Your task to perform on an android device: toggle wifi Image 0: 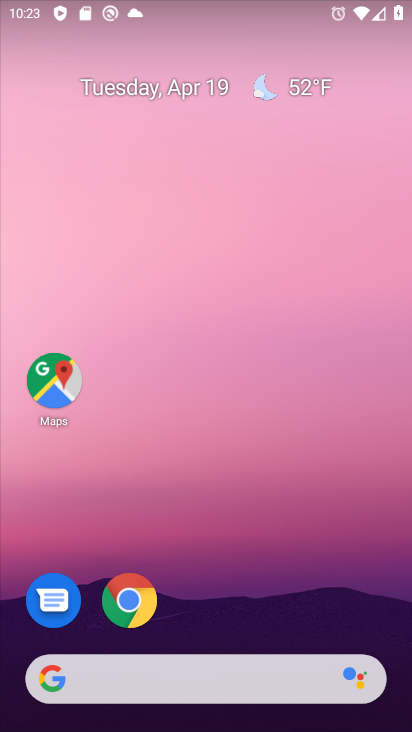
Step 0: drag from (280, 621) to (259, 146)
Your task to perform on an android device: toggle wifi Image 1: 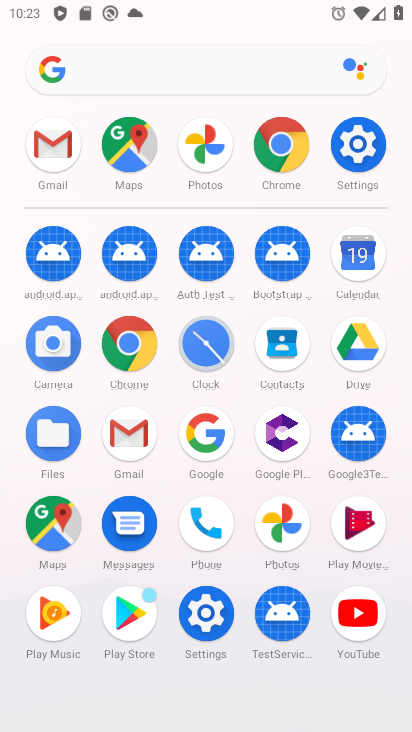
Step 1: drag from (252, 33) to (257, 394)
Your task to perform on an android device: toggle wifi Image 2: 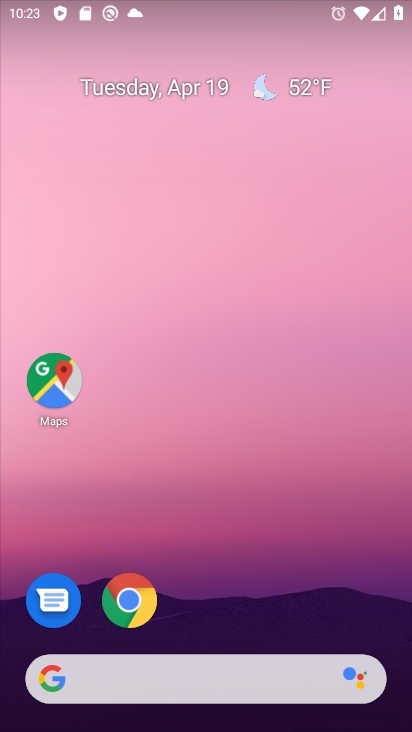
Step 2: drag from (222, 65) to (245, 471)
Your task to perform on an android device: toggle wifi Image 3: 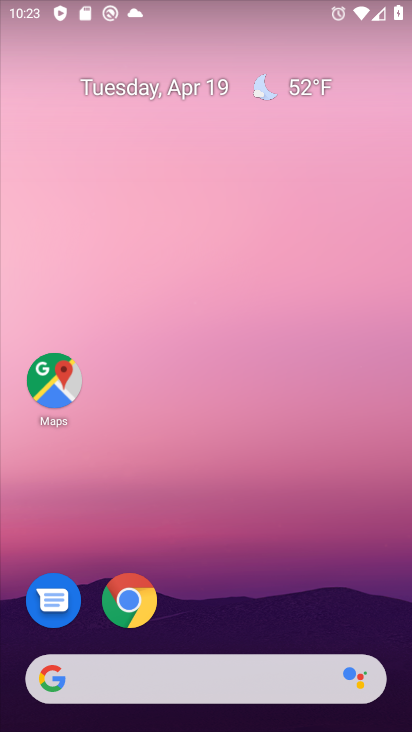
Step 3: drag from (208, 2) to (238, 424)
Your task to perform on an android device: toggle wifi Image 4: 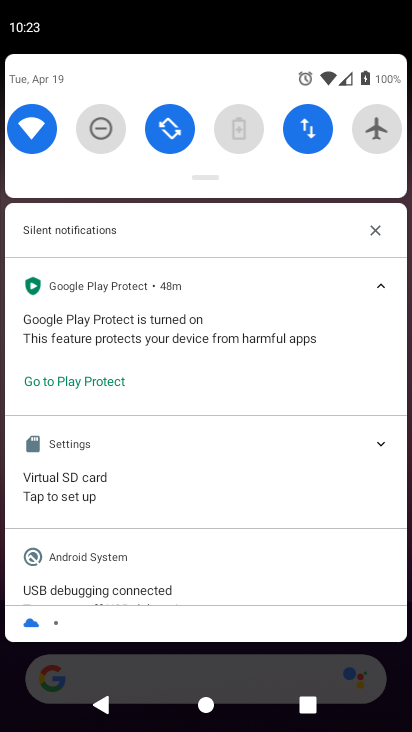
Step 4: click (38, 124)
Your task to perform on an android device: toggle wifi Image 5: 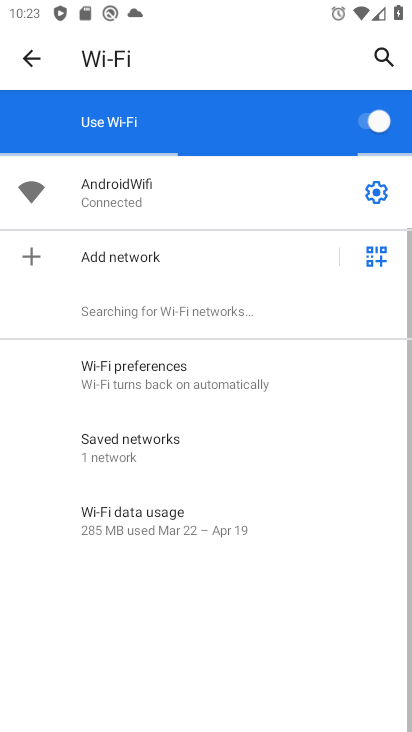
Step 5: click (355, 122)
Your task to perform on an android device: toggle wifi Image 6: 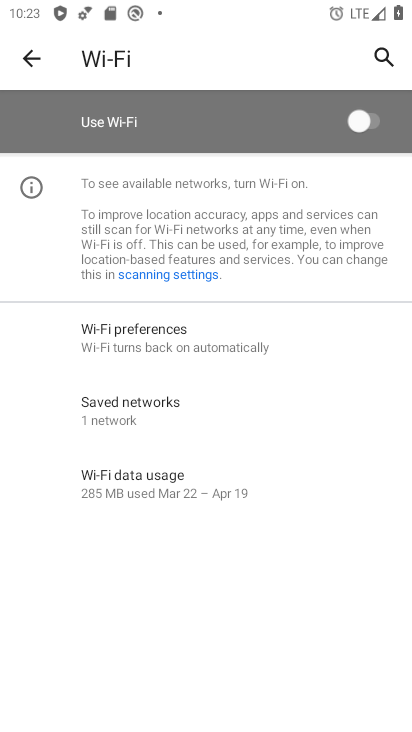
Step 6: task complete